Your task to perform on an android device: star an email in the gmail app Image 0: 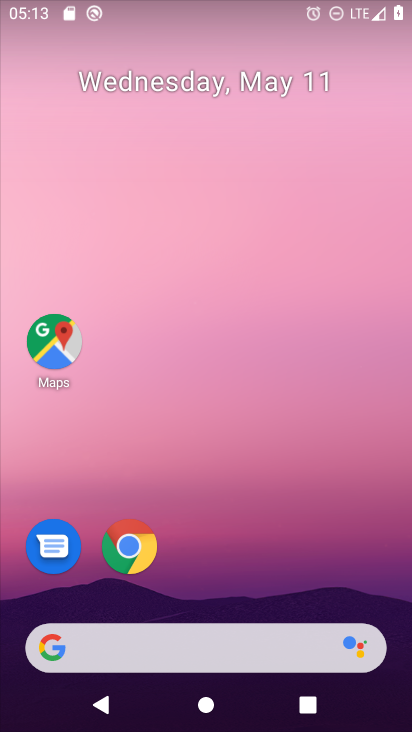
Step 0: drag from (288, 646) to (286, 58)
Your task to perform on an android device: star an email in the gmail app Image 1: 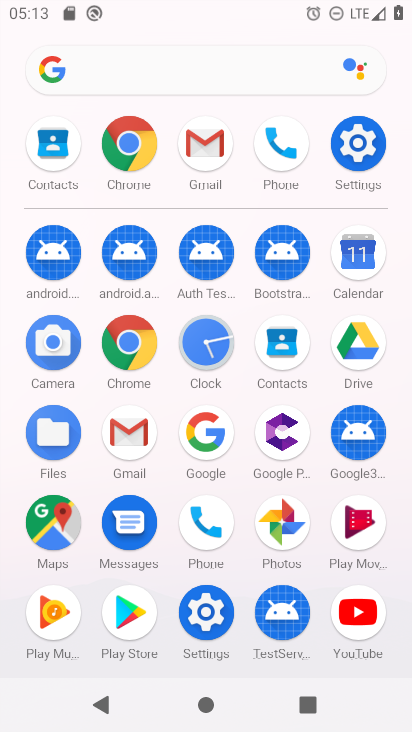
Step 1: click (140, 442)
Your task to perform on an android device: star an email in the gmail app Image 2: 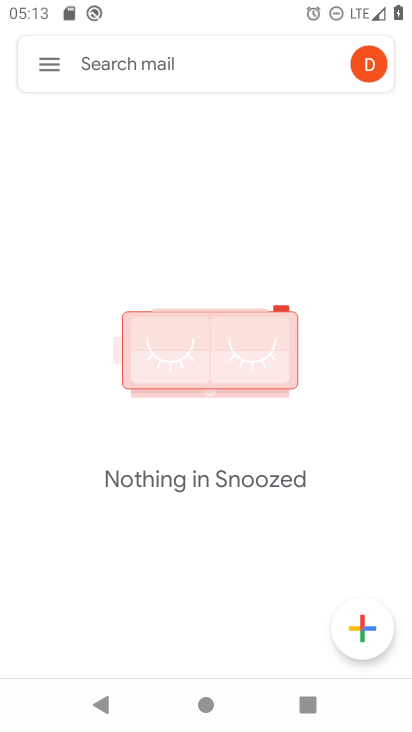
Step 2: click (49, 57)
Your task to perform on an android device: star an email in the gmail app Image 3: 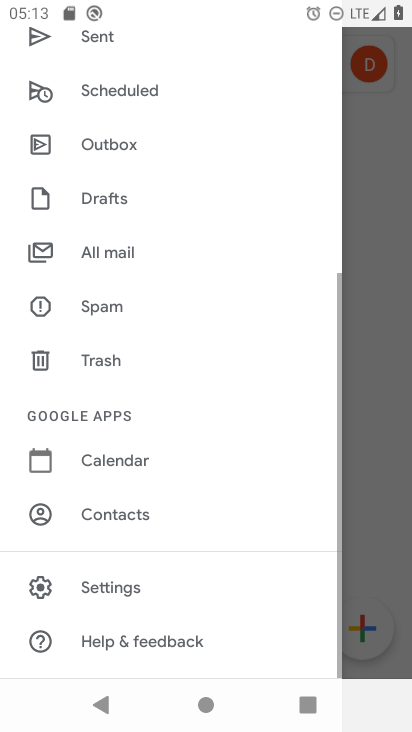
Step 3: drag from (149, 182) to (233, 606)
Your task to perform on an android device: star an email in the gmail app Image 4: 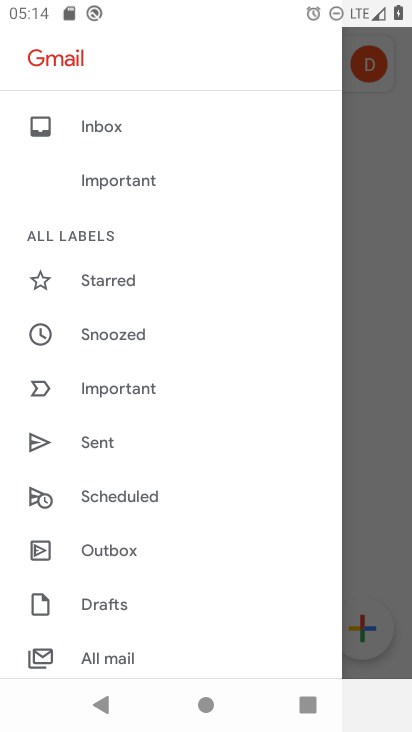
Step 4: click (112, 283)
Your task to perform on an android device: star an email in the gmail app Image 5: 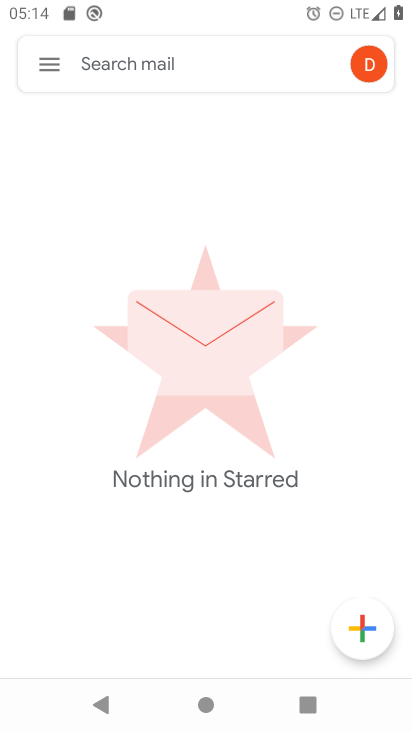
Step 5: task complete